Your task to perform on an android device: Open battery settings Image 0: 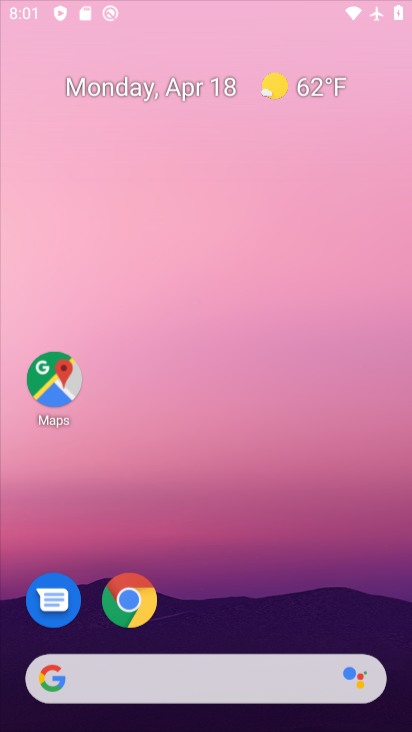
Step 0: click (322, 696)
Your task to perform on an android device: Open battery settings Image 1: 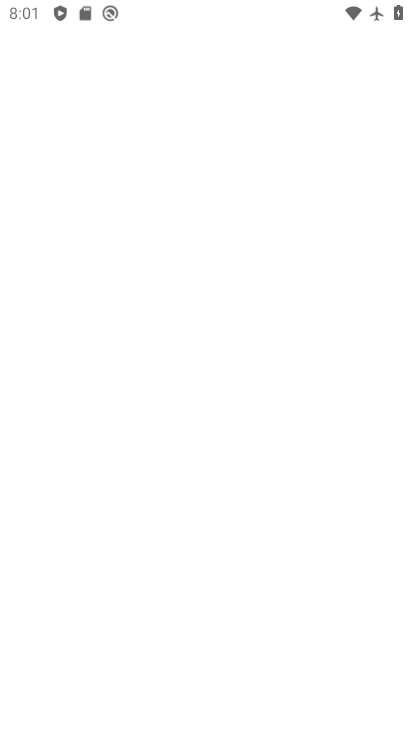
Step 1: press home button
Your task to perform on an android device: Open battery settings Image 2: 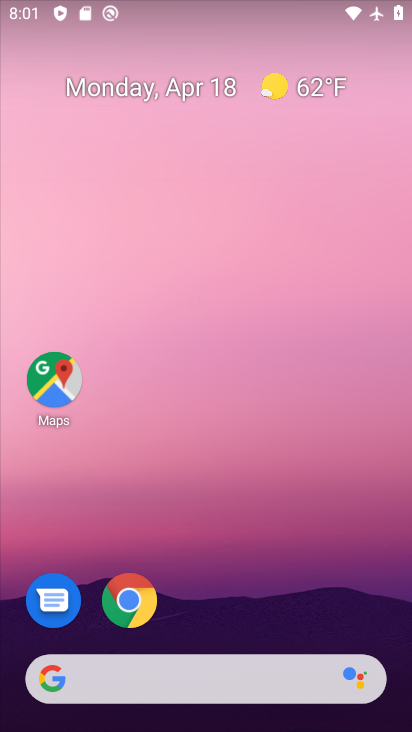
Step 2: drag from (204, 647) to (204, 0)
Your task to perform on an android device: Open battery settings Image 3: 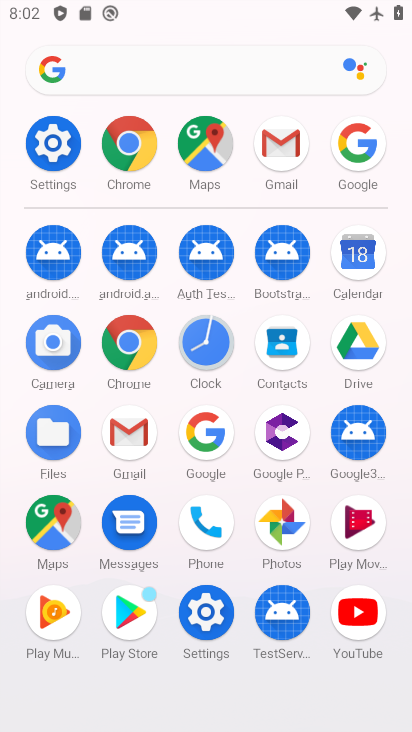
Step 3: click (205, 614)
Your task to perform on an android device: Open battery settings Image 4: 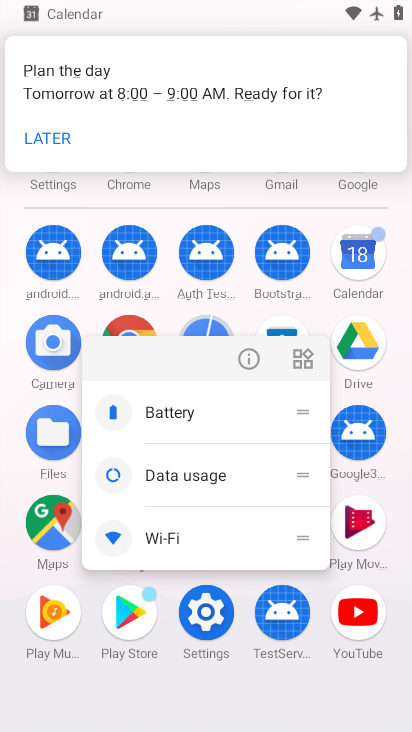
Step 4: click (199, 627)
Your task to perform on an android device: Open battery settings Image 5: 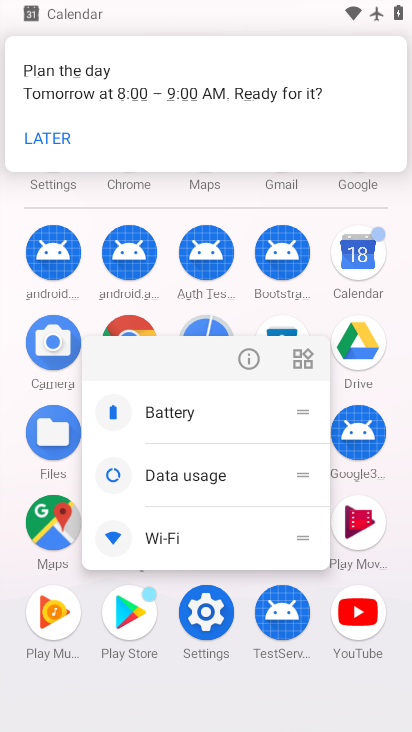
Step 5: click (206, 610)
Your task to perform on an android device: Open battery settings Image 6: 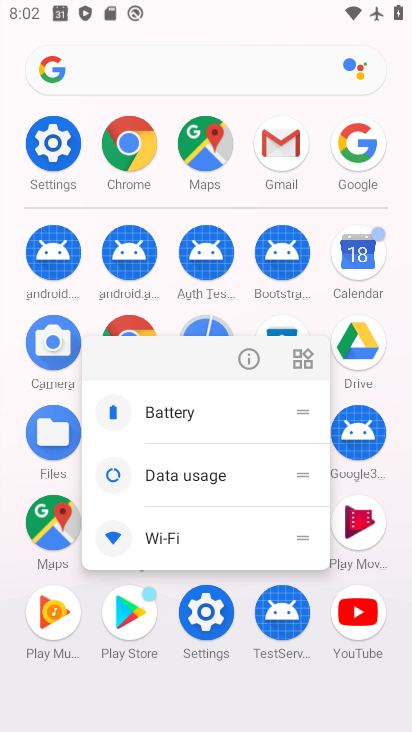
Step 6: click (207, 604)
Your task to perform on an android device: Open battery settings Image 7: 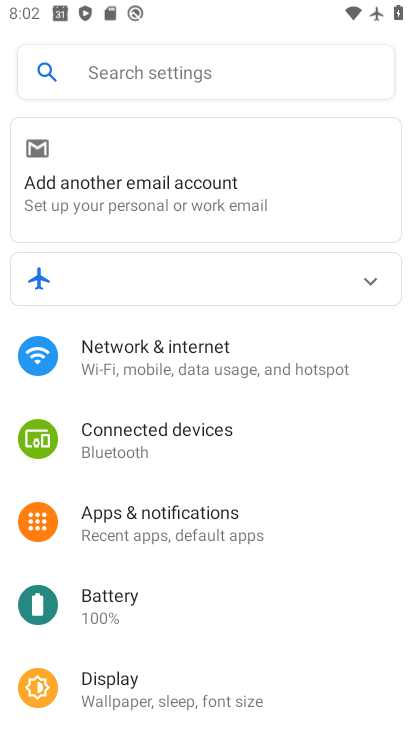
Step 7: click (115, 603)
Your task to perform on an android device: Open battery settings Image 8: 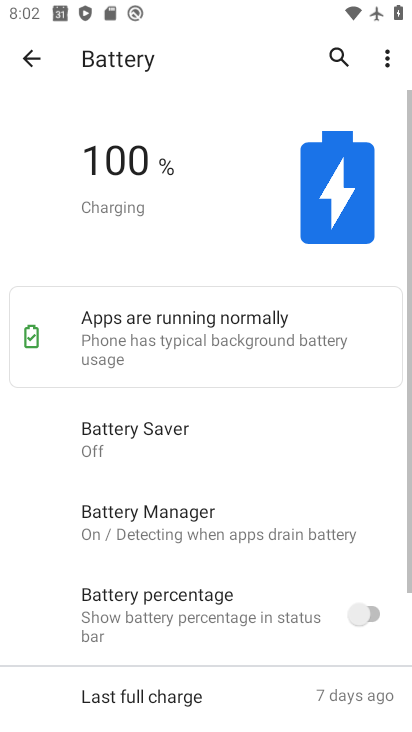
Step 8: task complete